Your task to perform on an android device: Open calendar and show me the third week of next month Image 0: 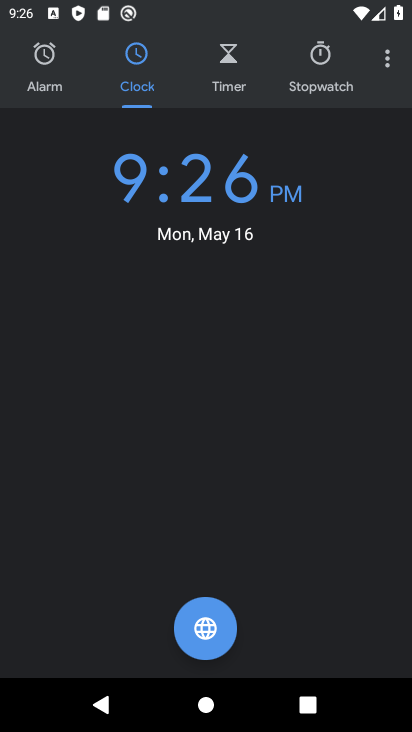
Step 0: press home button
Your task to perform on an android device: Open calendar and show me the third week of next month Image 1: 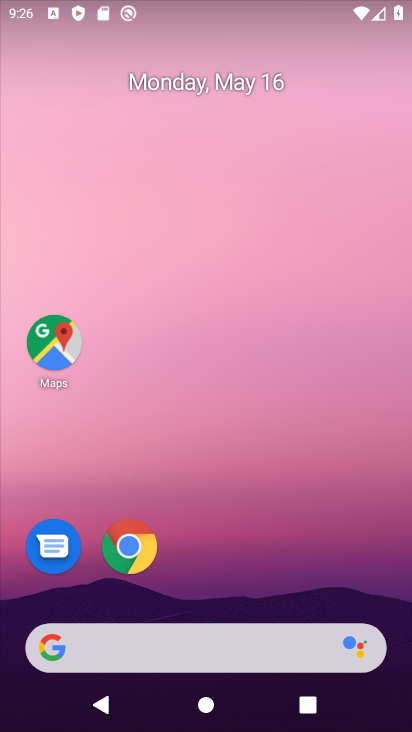
Step 1: click (200, 81)
Your task to perform on an android device: Open calendar and show me the third week of next month Image 2: 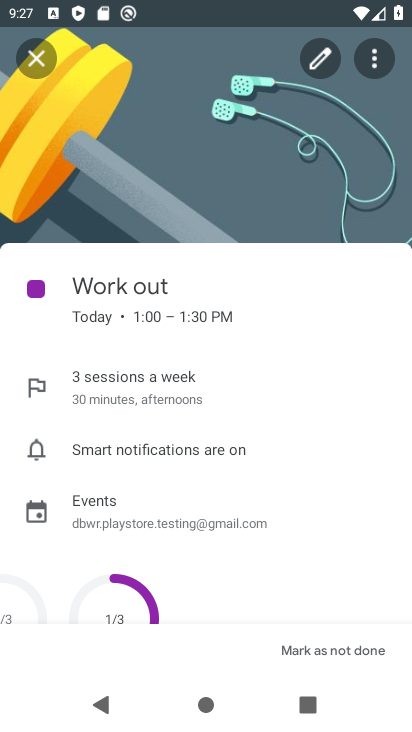
Step 2: click (35, 57)
Your task to perform on an android device: Open calendar and show me the third week of next month Image 3: 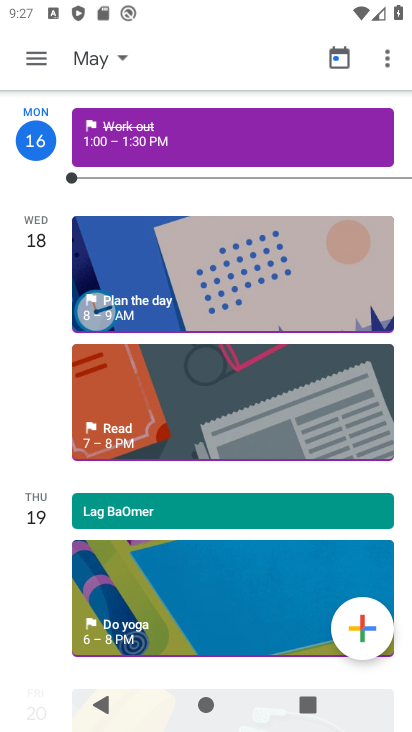
Step 3: click (101, 74)
Your task to perform on an android device: Open calendar and show me the third week of next month Image 4: 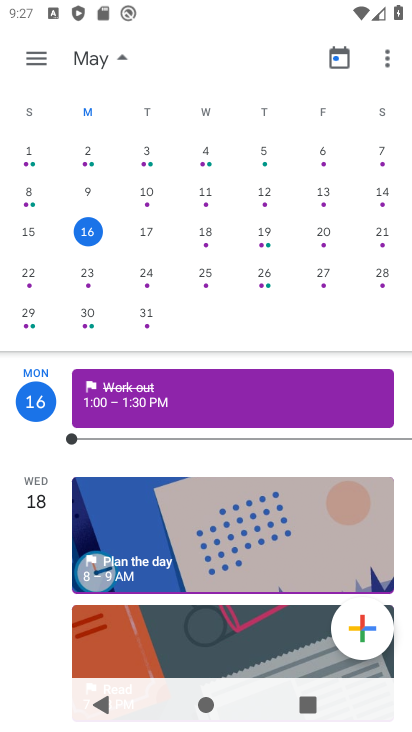
Step 4: drag from (291, 305) to (45, 282)
Your task to perform on an android device: Open calendar and show me the third week of next month Image 5: 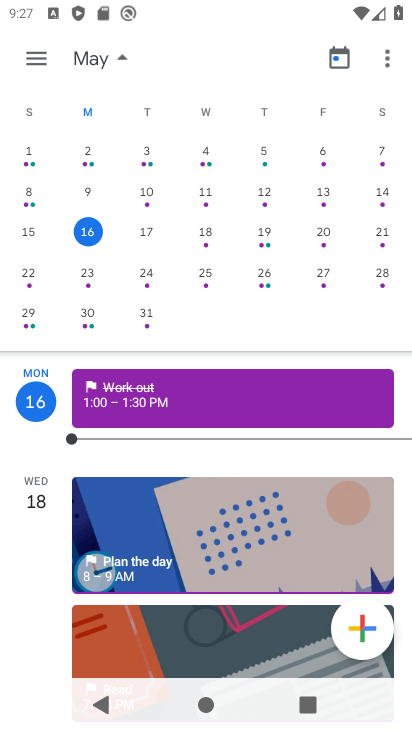
Step 5: drag from (312, 320) to (37, 314)
Your task to perform on an android device: Open calendar and show me the third week of next month Image 6: 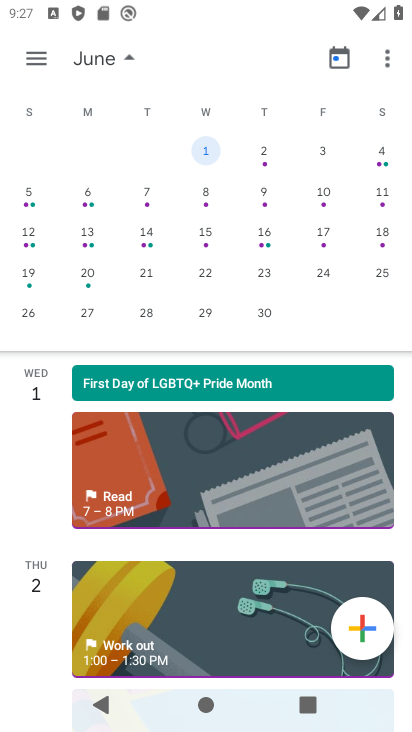
Step 6: click (272, 237)
Your task to perform on an android device: Open calendar and show me the third week of next month Image 7: 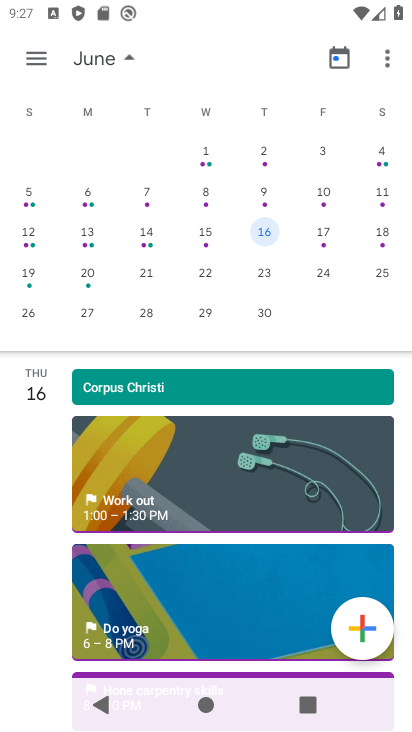
Step 7: task complete